Your task to perform on an android device: open wifi settings Image 0: 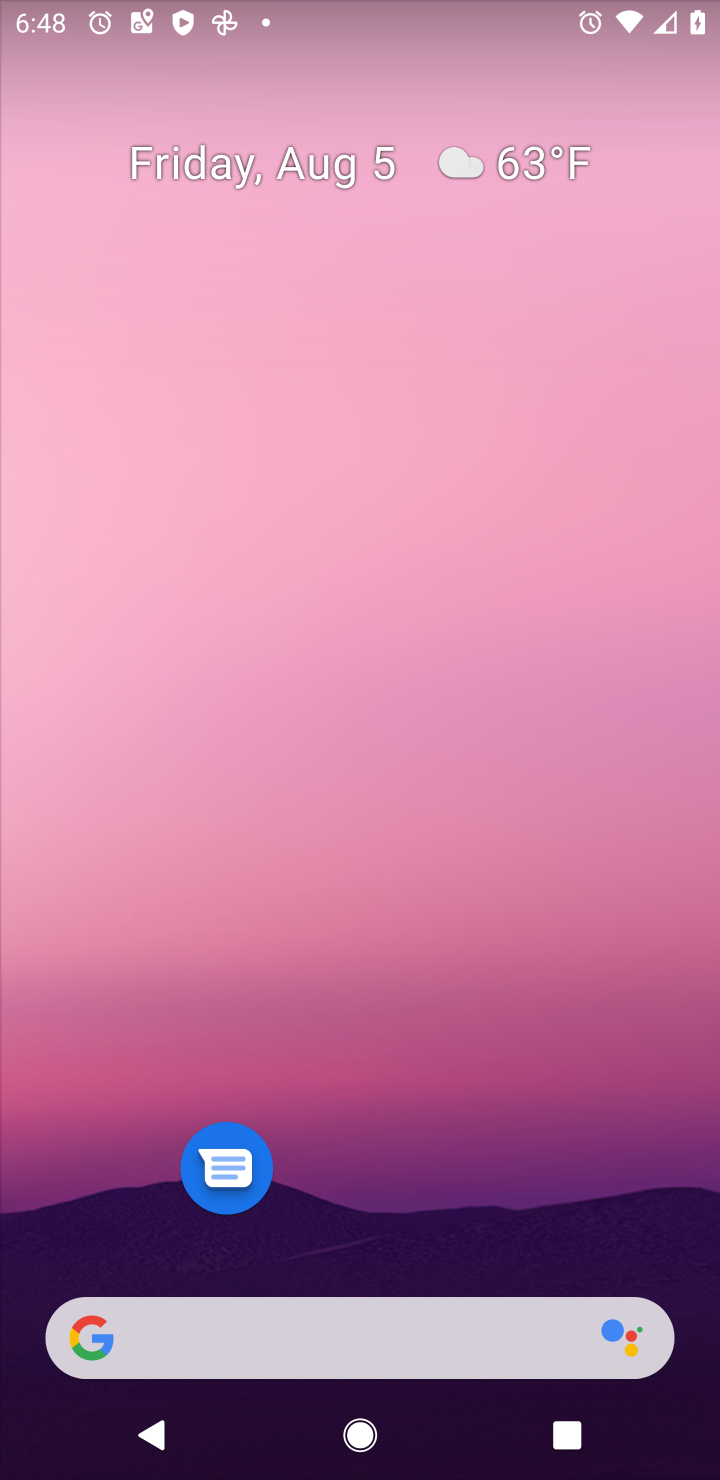
Step 0: drag from (389, 1169) to (385, 214)
Your task to perform on an android device: open wifi settings Image 1: 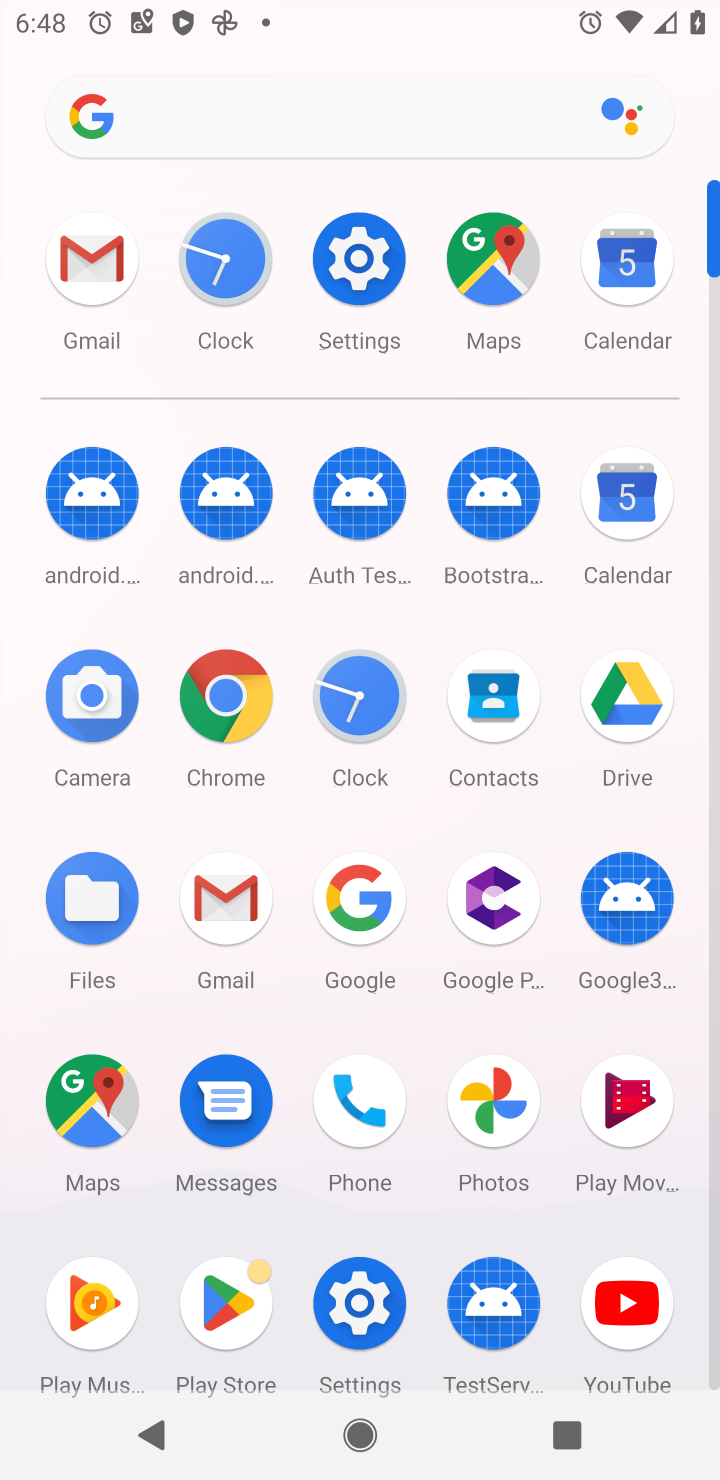
Step 1: click (361, 265)
Your task to perform on an android device: open wifi settings Image 2: 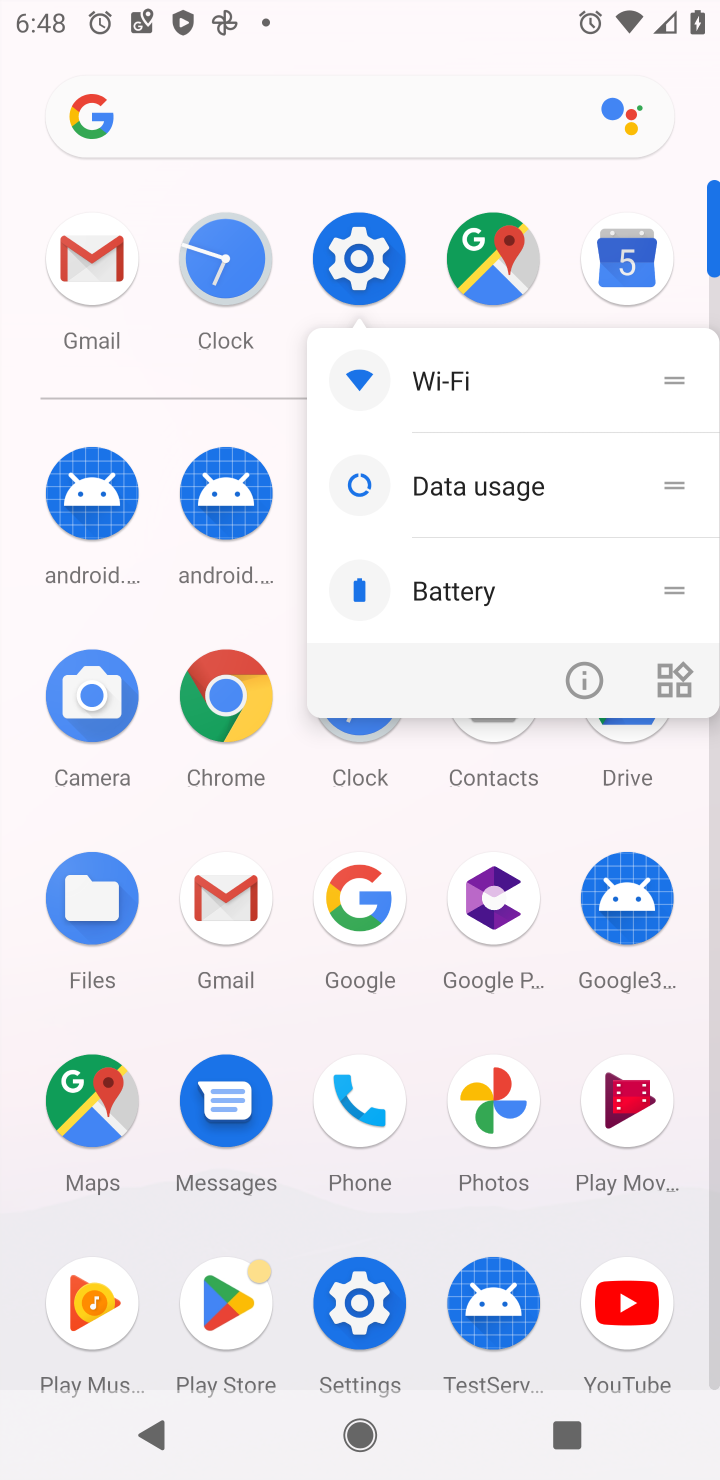
Step 2: click (421, 391)
Your task to perform on an android device: open wifi settings Image 3: 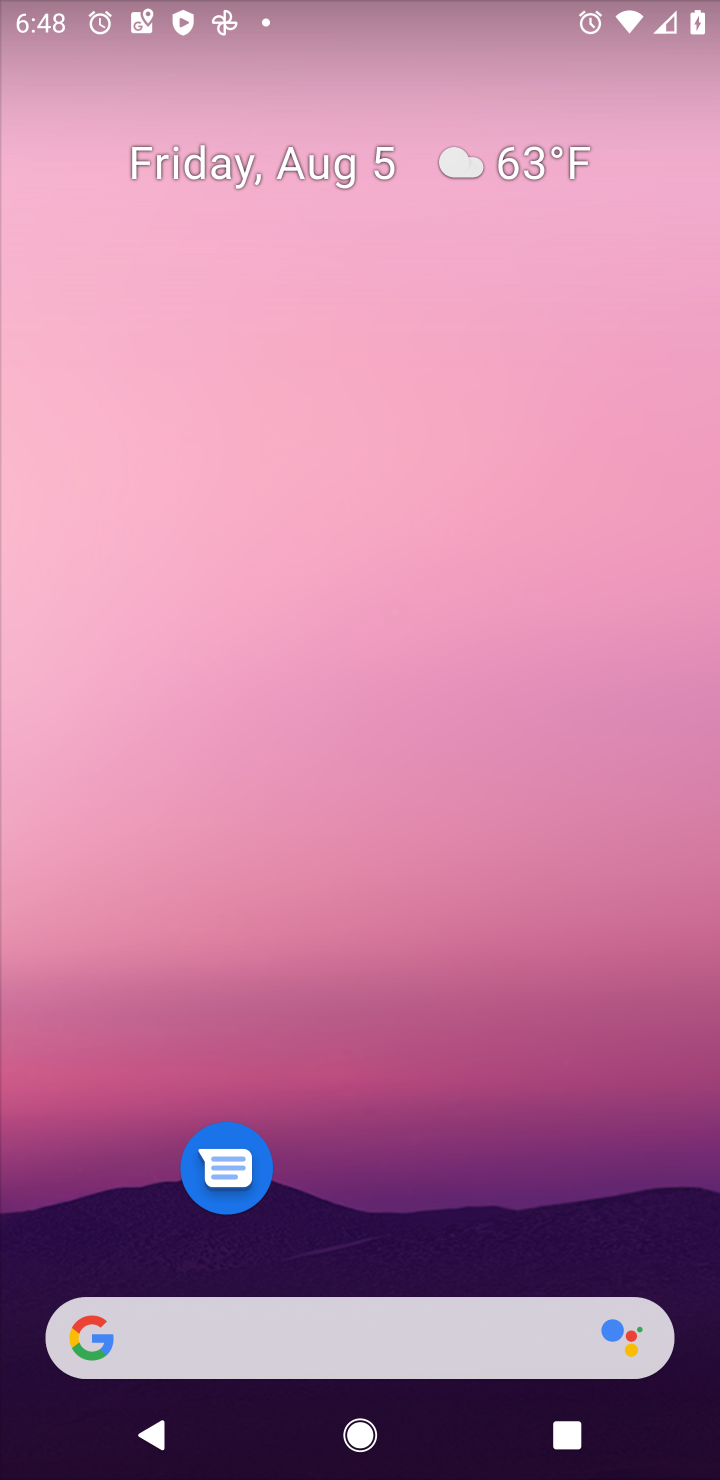
Step 3: drag from (433, 1283) to (562, 39)
Your task to perform on an android device: open wifi settings Image 4: 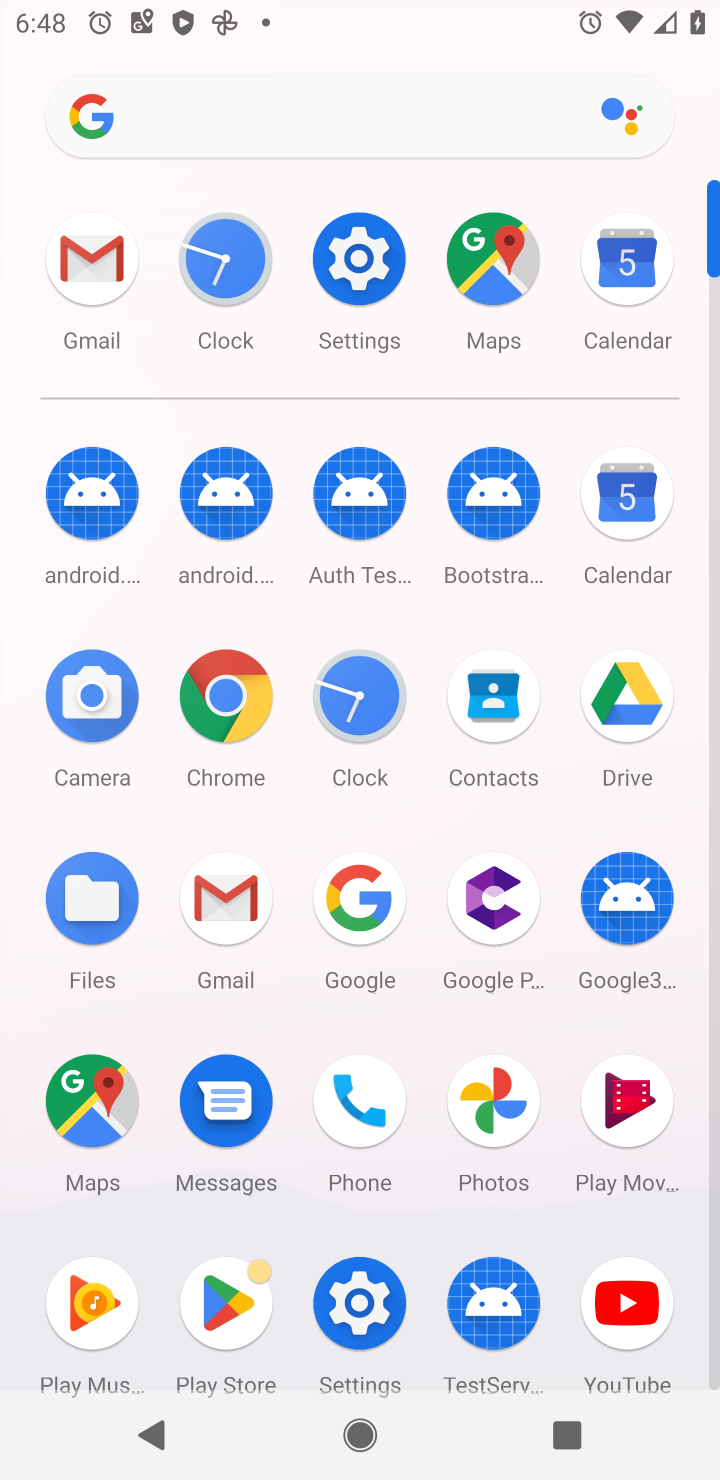
Step 4: click (335, 282)
Your task to perform on an android device: open wifi settings Image 5: 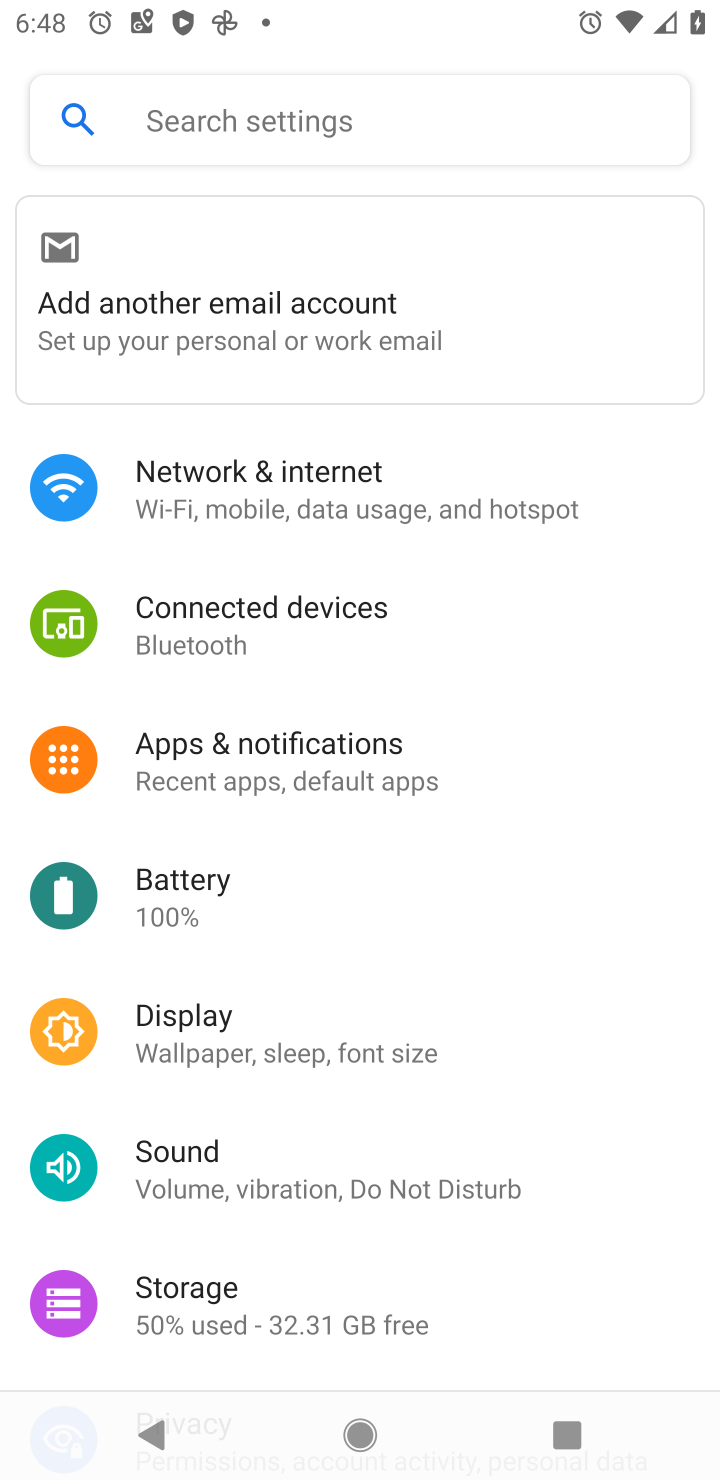
Step 5: click (258, 491)
Your task to perform on an android device: open wifi settings Image 6: 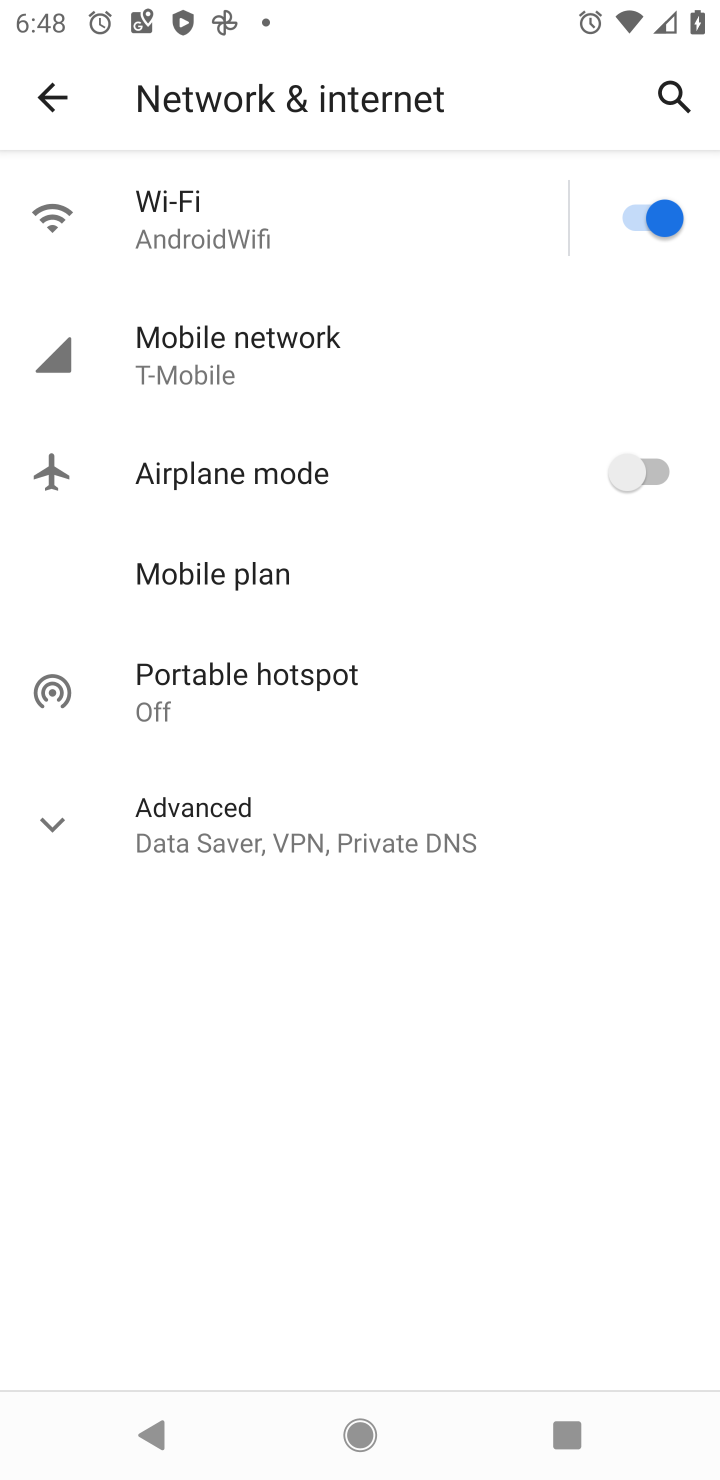
Step 6: click (202, 234)
Your task to perform on an android device: open wifi settings Image 7: 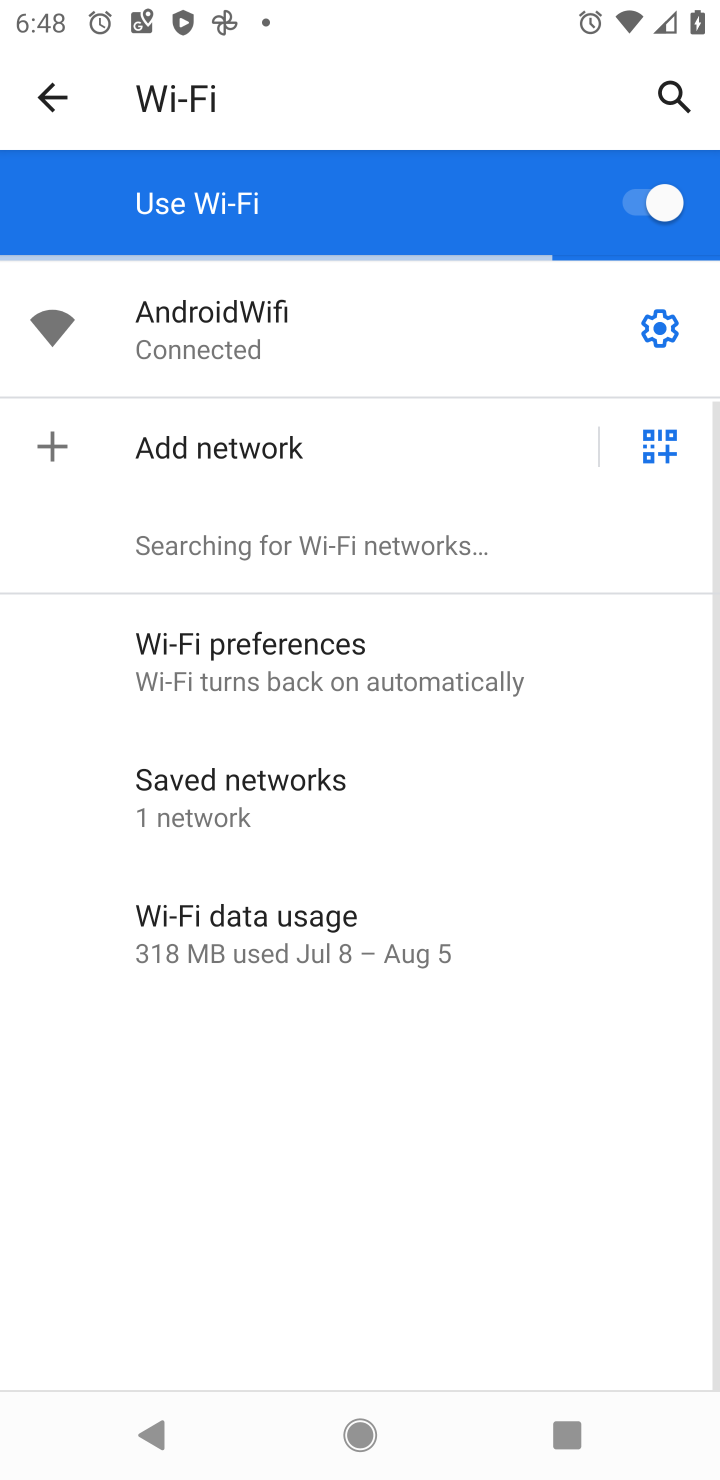
Step 7: click (213, 330)
Your task to perform on an android device: open wifi settings Image 8: 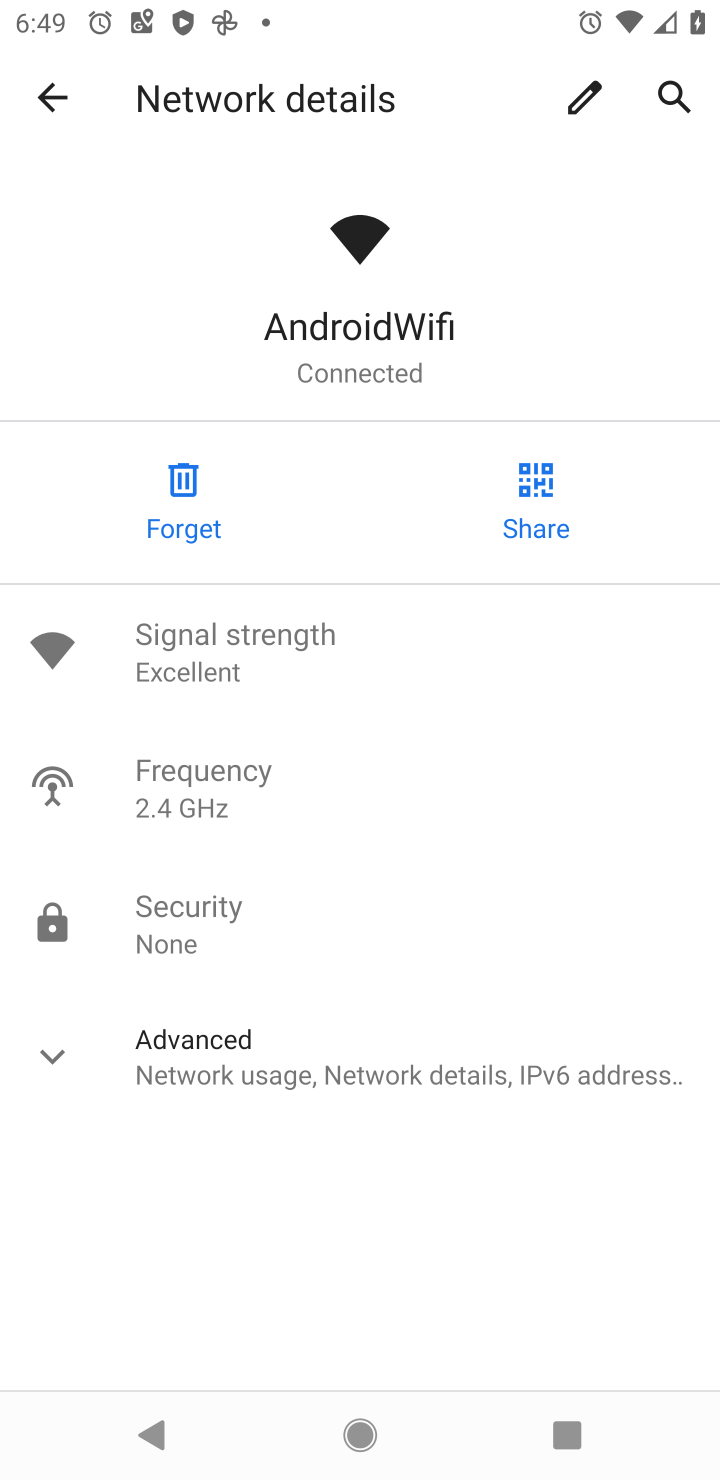
Step 8: task complete